Your task to perform on an android device: Clear the cart on amazon. Search for "asus zenbook" on amazon, select the first entry, and add it to the cart. Image 0: 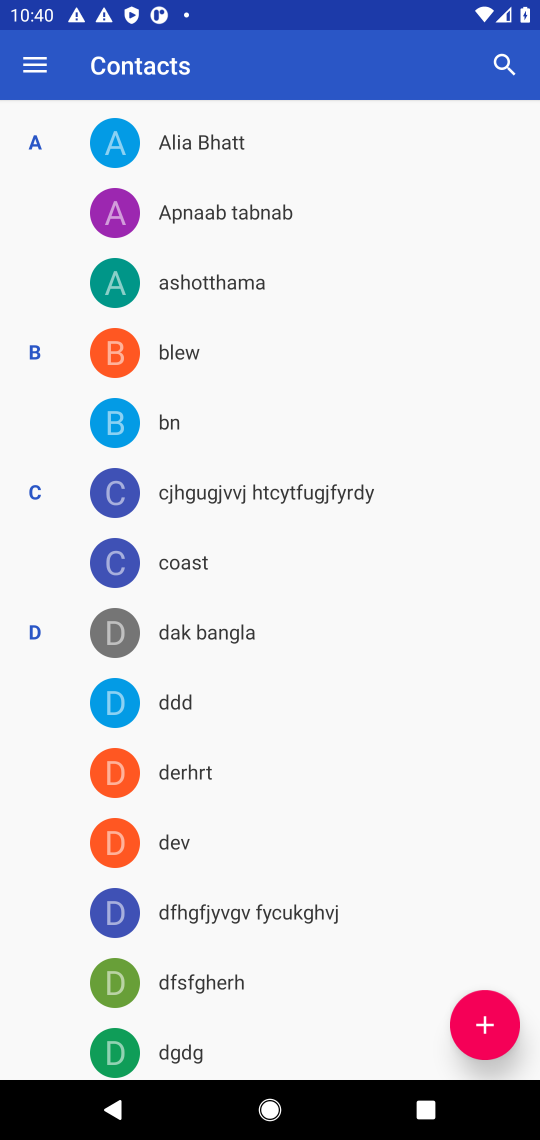
Step 0: press home button
Your task to perform on an android device: Clear the cart on amazon. Search for "asus zenbook" on amazon, select the first entry, and add it to the cart. Image 1: 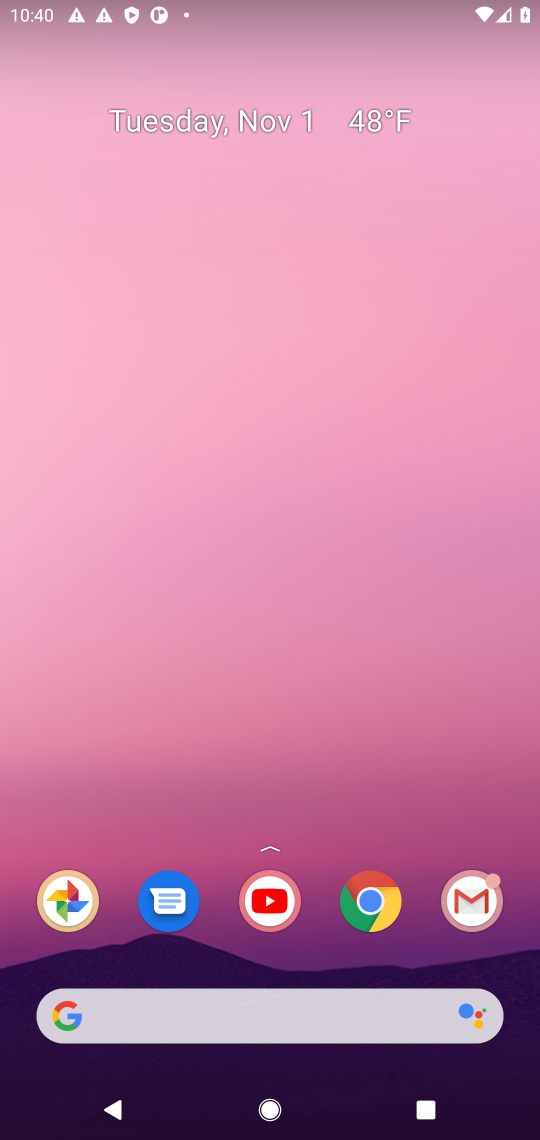
Step 1: drag from (329, 876) to (358, 143)
Your task to perform on an android device: Clear the cart on amazon. Search for "asus zenbook" on amazon, select the first entry, and add it to the cart. Image 2: 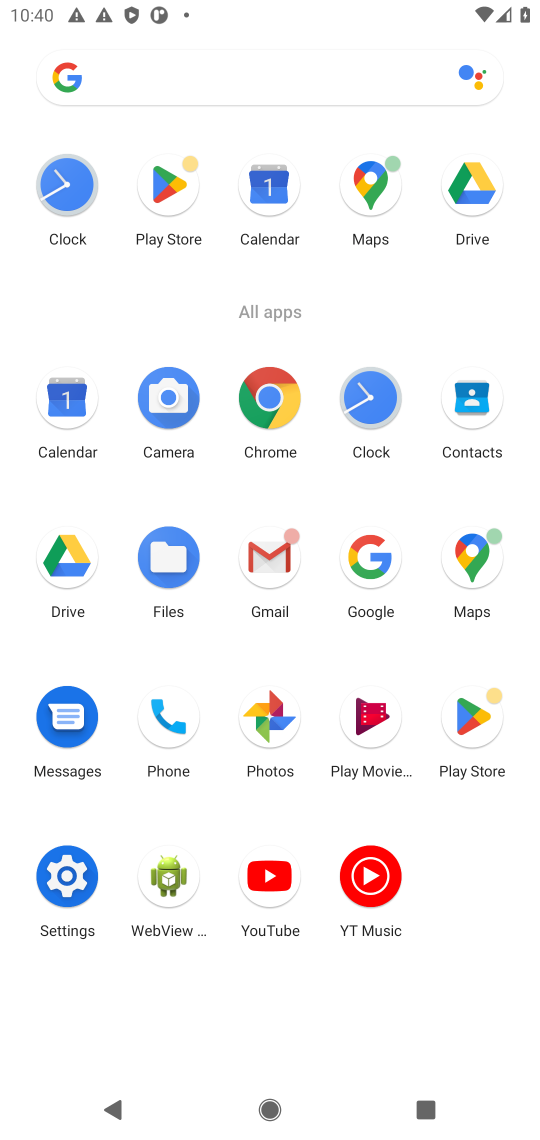
Step 2: click (272, 402)
Your task to perform on an android device: Clear the cart on amazon. Search for "asus zenbook" on amazon, select the first entry, and add it to the cart. Image 3: 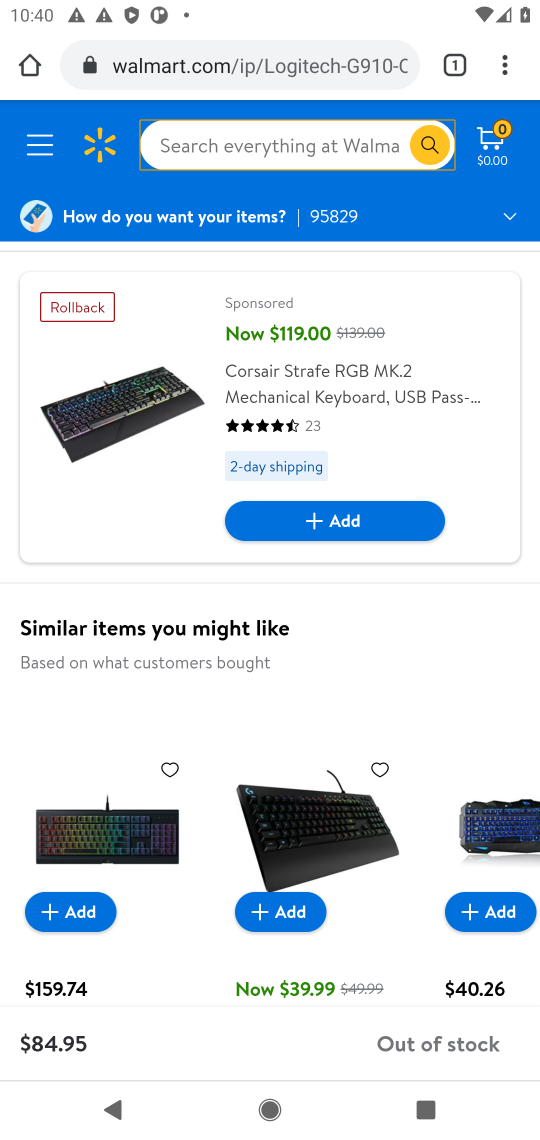
Step 3: click (250, 62)
Your task to perform on an android device: Clear the cart on amazon. Search for "asus zenbook" on amazon, select the first entry, and add it to the cart. Image 4: 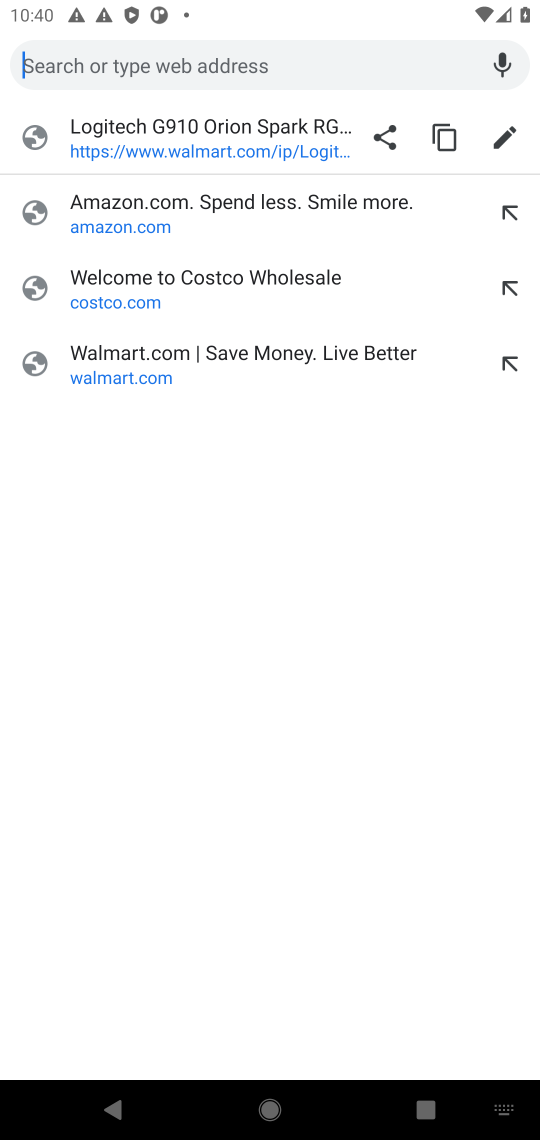
Step 4: type "amazon.com"
Your task to perform on an android device: Clear the cart on amazon. Search for "asus zenbook" on amazon, select the first entry, and add it to the cart. Image 5: 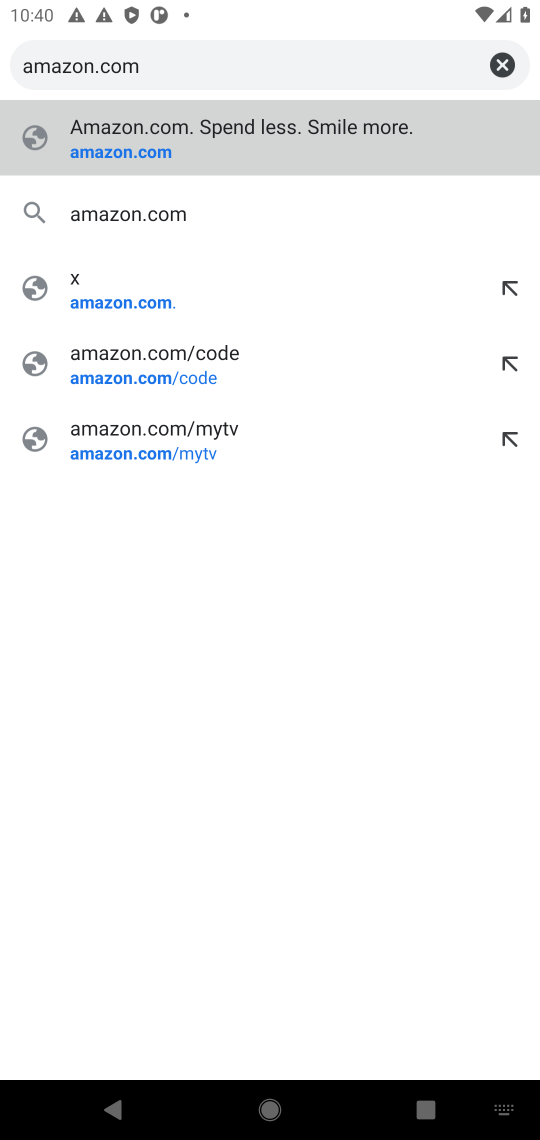
Step 5: press enter
Your task to perform on an android device: Clear the cart on amazon. Search for "asus zenbook" on amazon, select the first entry, and add it to the cart. Image 6: 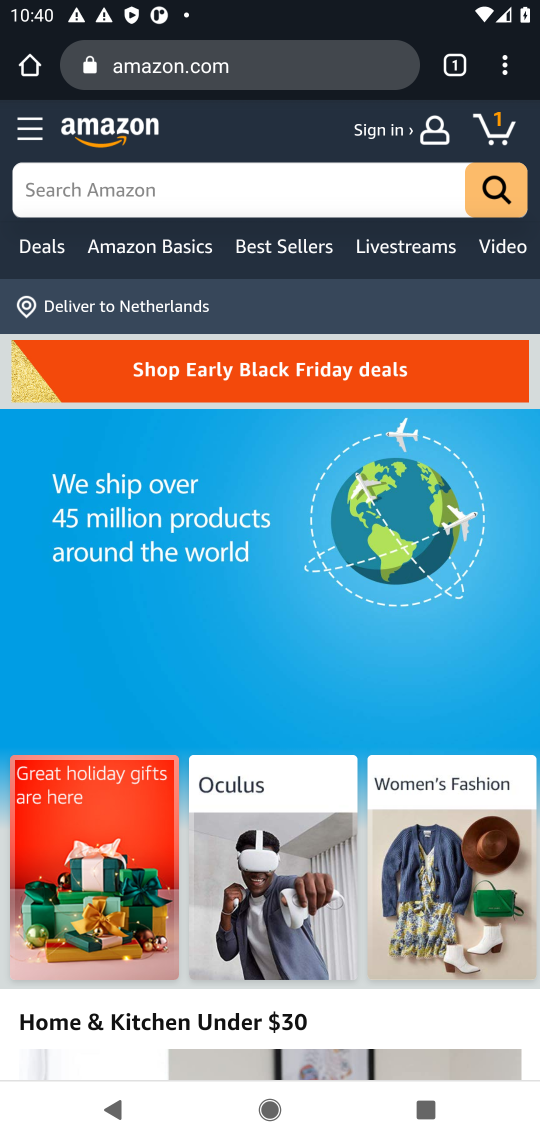
Step 6: click (497, 129)
Your task to perform on an android device: Clear the cart on amazon. Search for "asus zenbook" on amazon, select the first entry, and add it to the cart. Image 7: 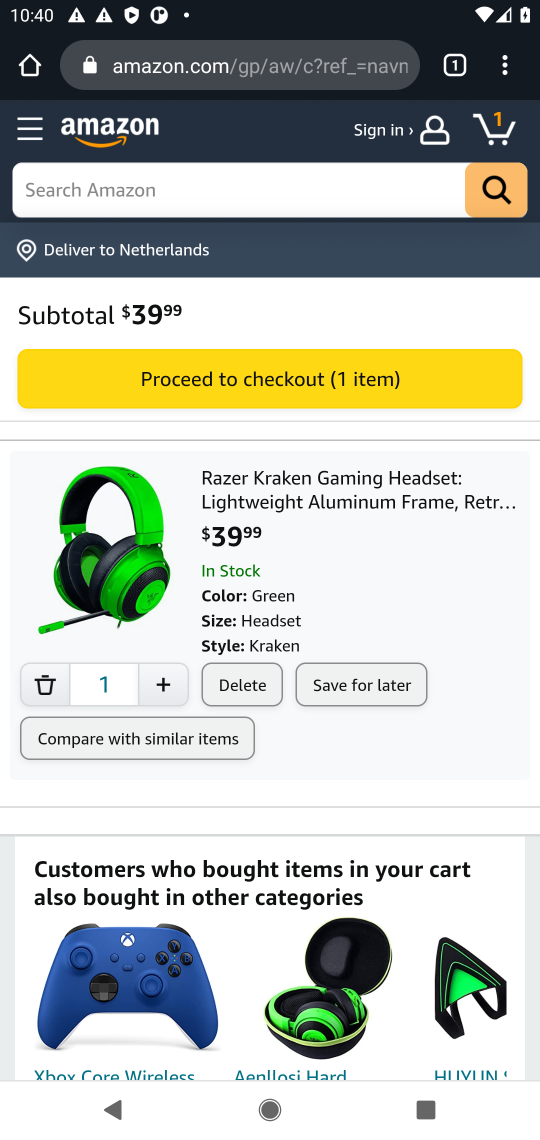
Step 7: click (257, 686)
Your task to perform on an android device: Clear the cart on amazon. Search for "asus zenbook" on amazon, select the first entry, and add it to the cart. Image 8: 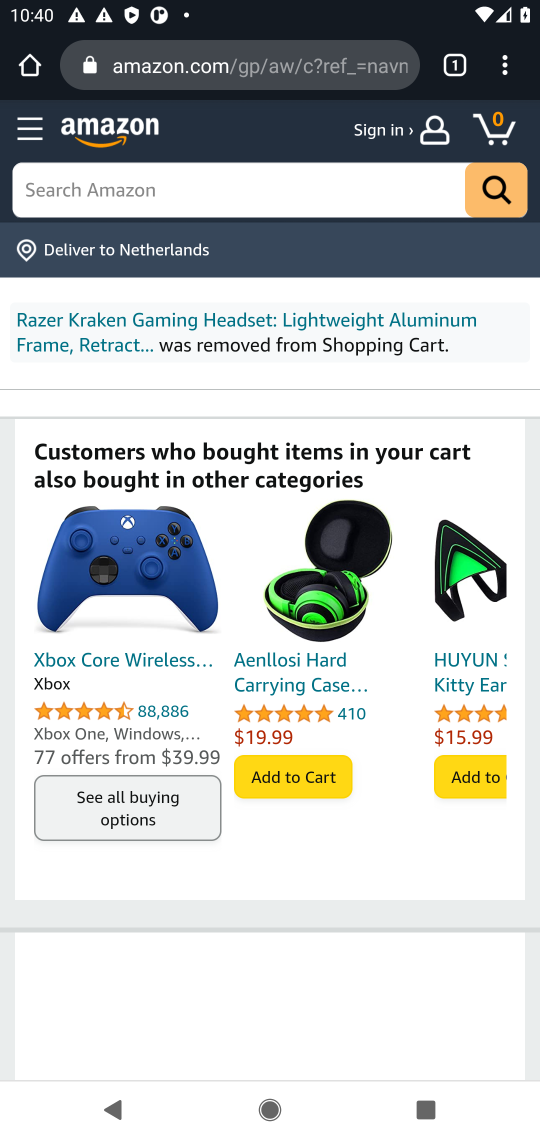
Step 8: click (341, 189)
Your task to perform on an android device: Clear the cart on amazon. Search for "asus zenbook" on amazon, select the first entry, and add it to the cart. Image 9: 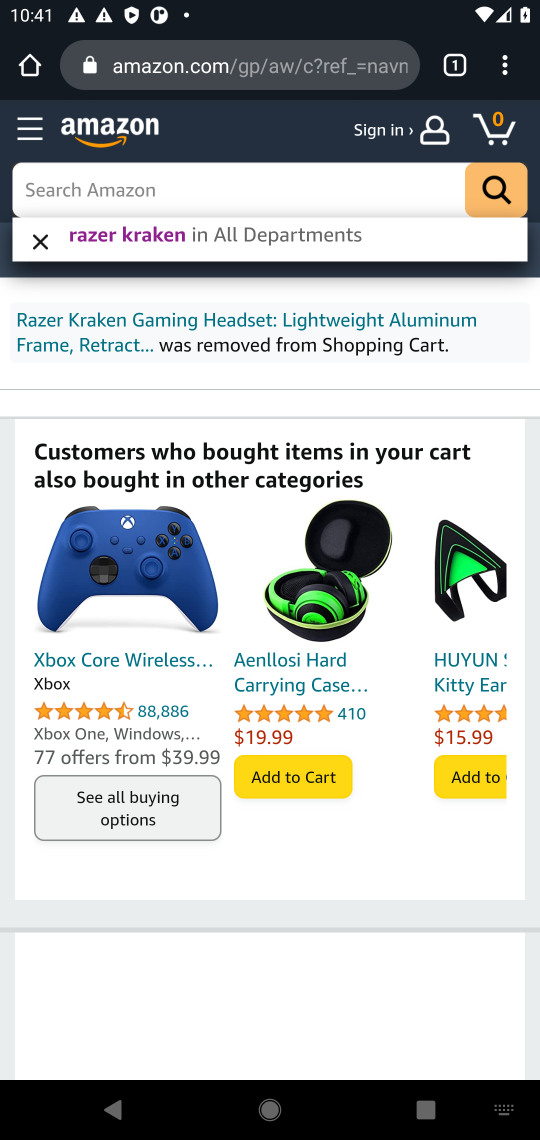
Step 9: type "asus zenbook"
Your task to perform on an android device: Clear the cart on amazon. Search for "asus zenbook" on amazon, select the first entry, and add it to the cart. Image 10: 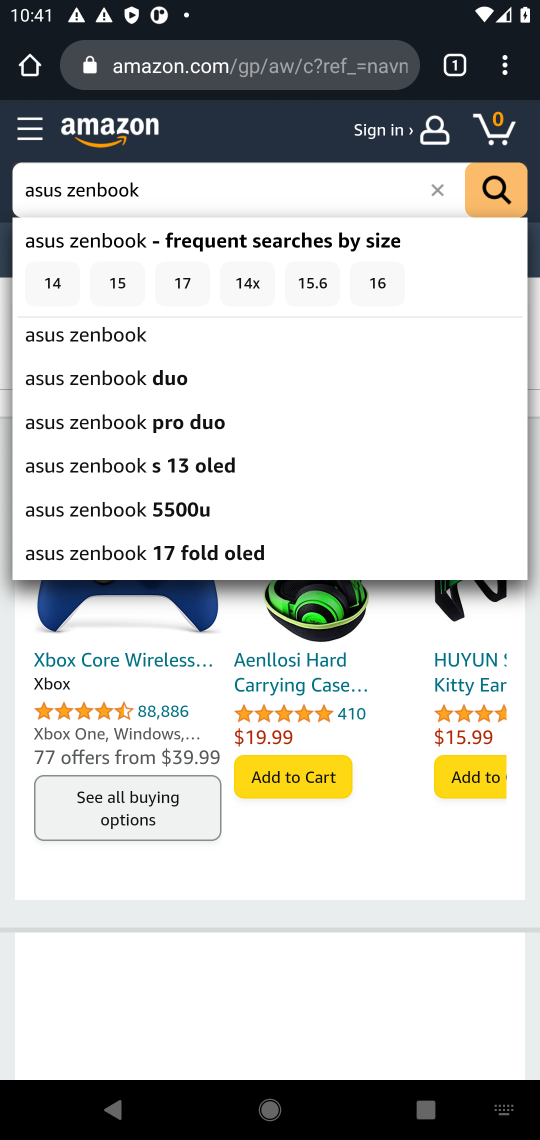
Step 10: press enter
Your task to perform on an android device: Clear the cart on amazon. Search for "asus zenbook" on amazon, select the first entry, and add it to the cart. Image 11: 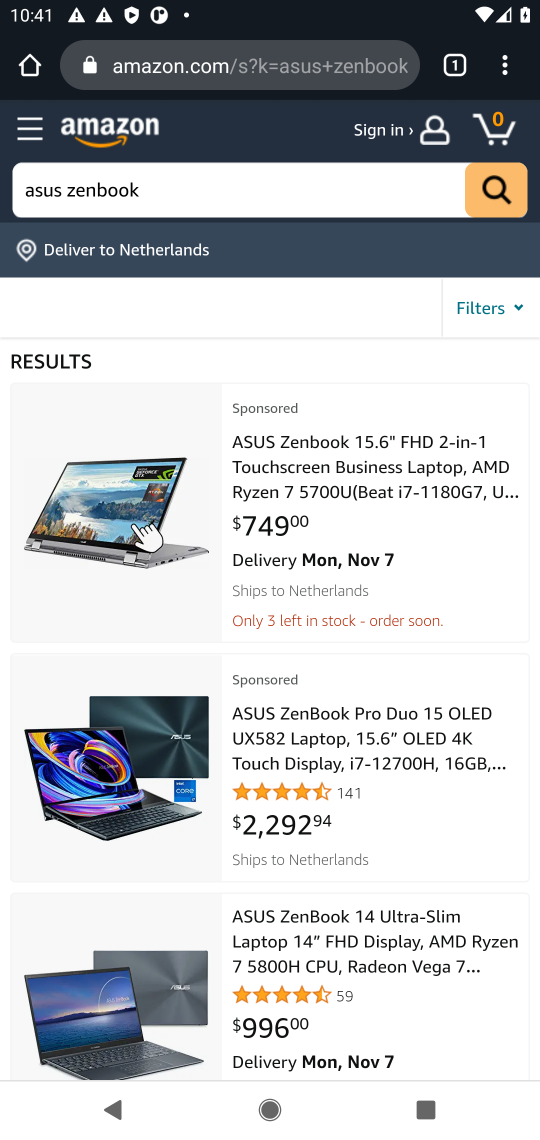
Step 11: drag from (342, 940) to (361, 399)
Your task to perform on an android device: Clear the cart on amazon. Search for "asus zenbook" on amazon, select the first entry, and add it to the cart. Image 12: 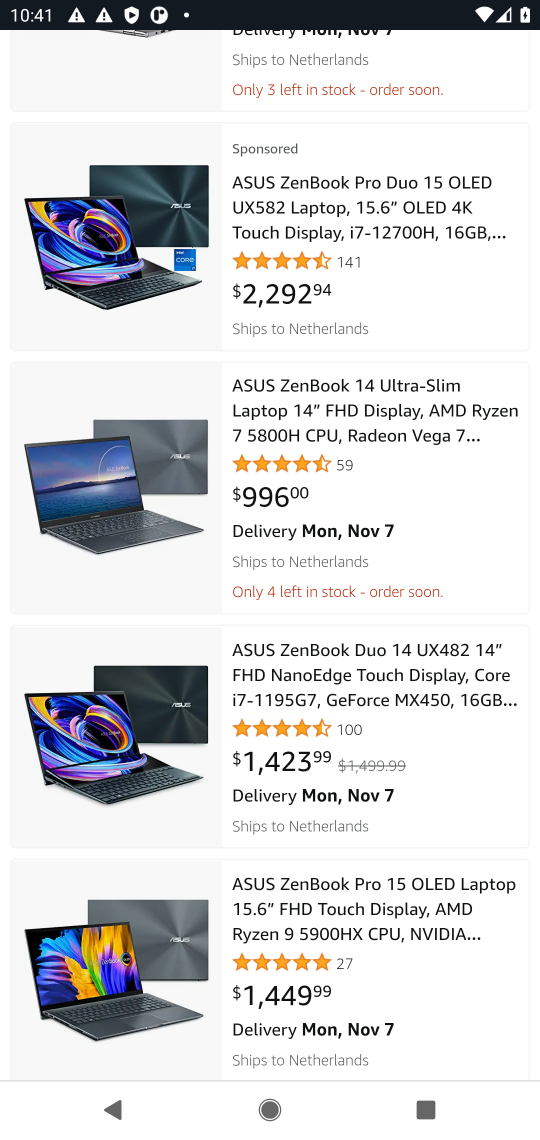
Step 12: click (324, 423)
Your task to perform on an android device: Clear the cart on amazon. Search for "asus zenbook" on amazon, select the first entry, and add it to the cart. Image 13: 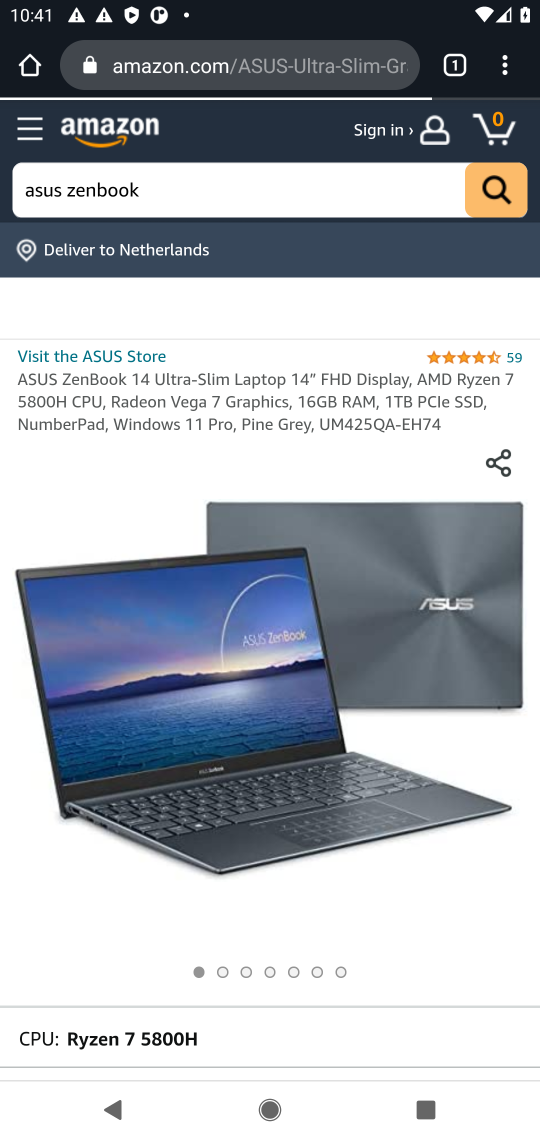
Step 13: drag from (333, 873) to (335, 245)
Your task to perform on an android device: Clear the cart on amazon. Search for "asus zenbook" on amazon, select the first entry, and add it to the cart. Image 14: 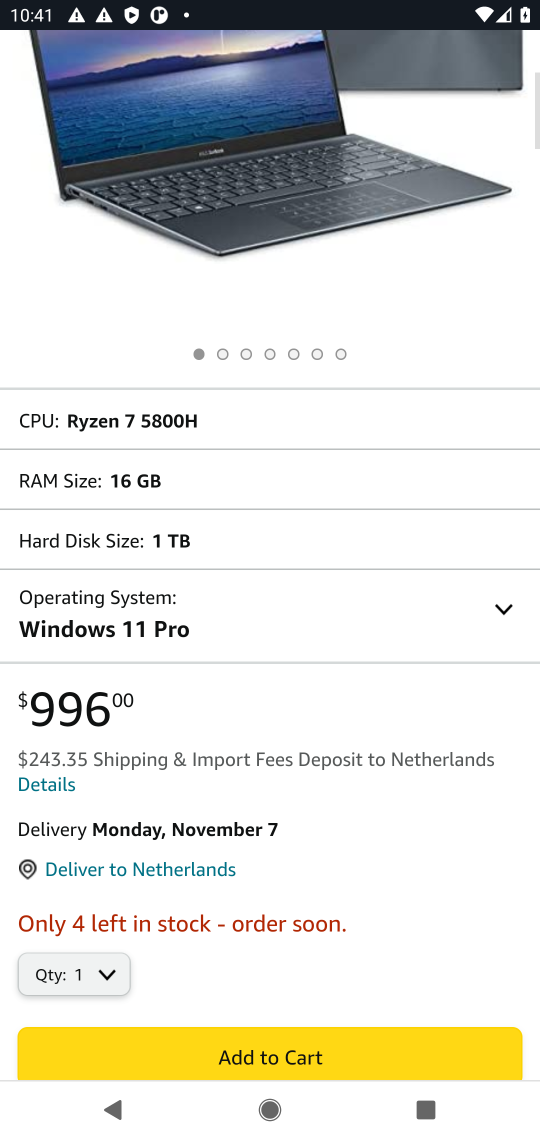
Step 14: drag from (298, 858) to (313, 310)
Your task to perform on an android device: Clear the cart on amazon. Search for "asus zenbook" on amazon, select the first entry, and add it to the cart. Image 15: 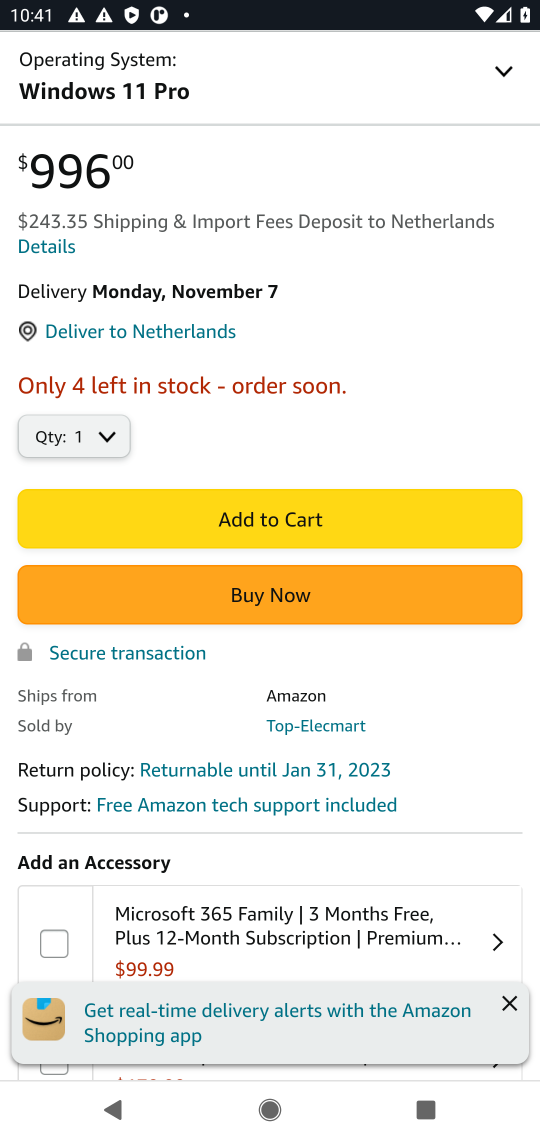
Step 15: click (280, 527)
Your task to perform on an android device: Clear the cart on amazon. Search for "asus zenbook" on amazon, select the first entry, and add it to the cart. Image 16: 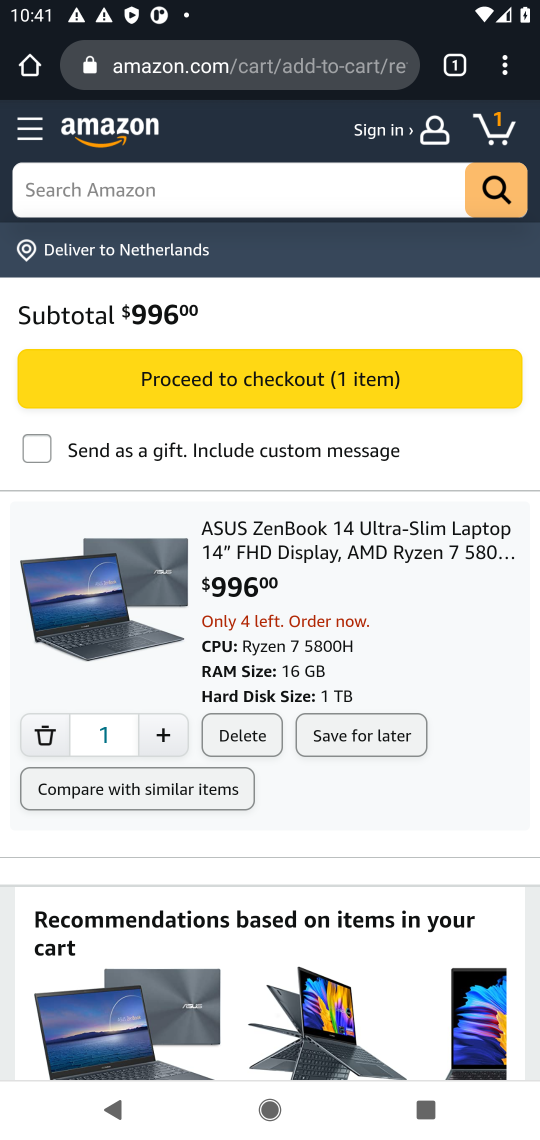
Step 16: task complete